Your task to perform on an android device: turn notification dots on Image 0: 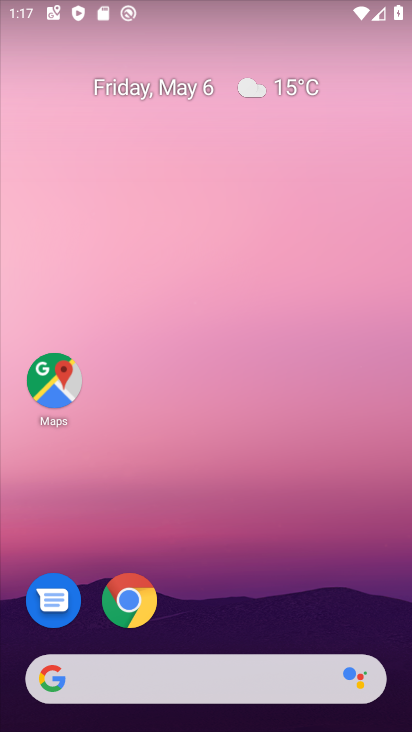
Step 0: drag from (327, 601) to (376, 124)
Your task to perform on an android device: turn notification dots on Image 1: 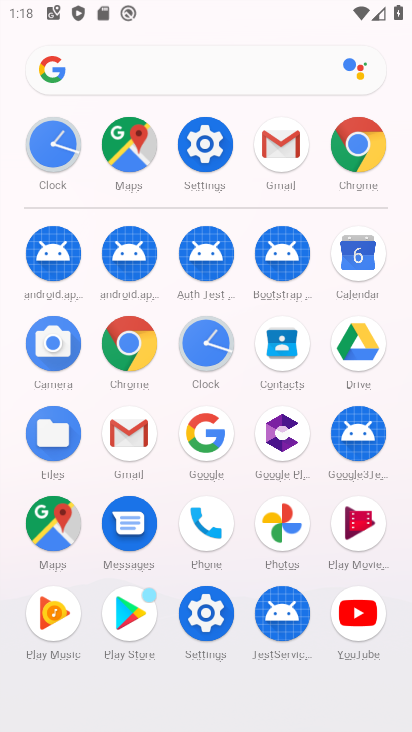
Step 1: click (214, 626)
Your task to perform on an android device: turn notification dots on Image 2: 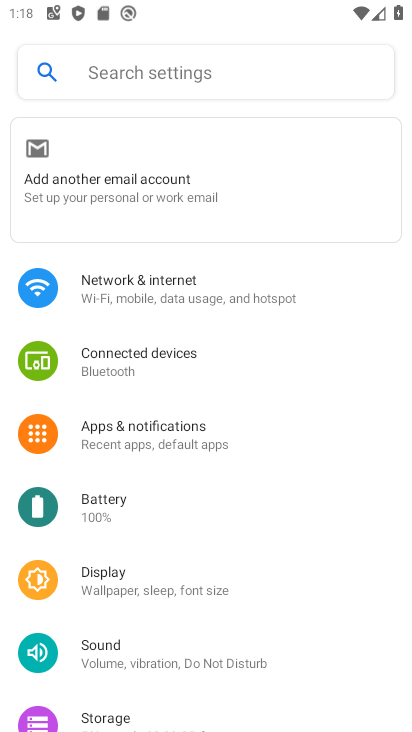
Step 2: click (247, 450)
Your task to perform on an android device: turn notification dots on Image 3: 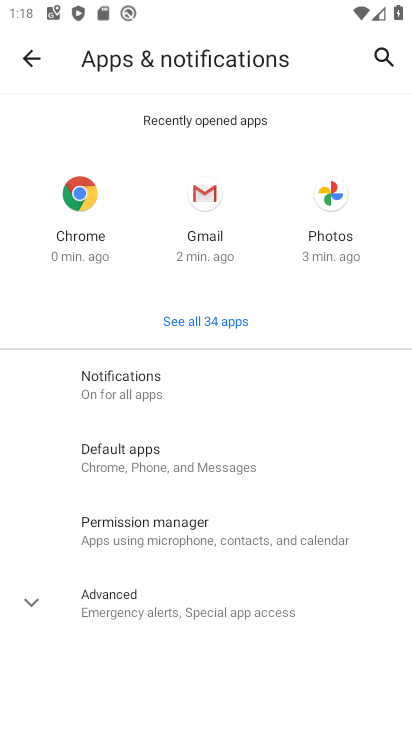
Step 3: click (175, 402)
Your task to perform on an android device: turn notification dots on Image 4: 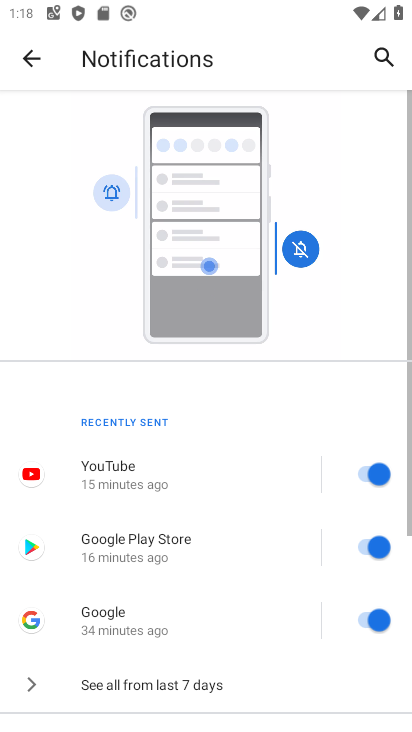
Step 4: drag from (165, 626) to (267, 125)
Your task to perform on an android device: turn notification dots on Image 5: 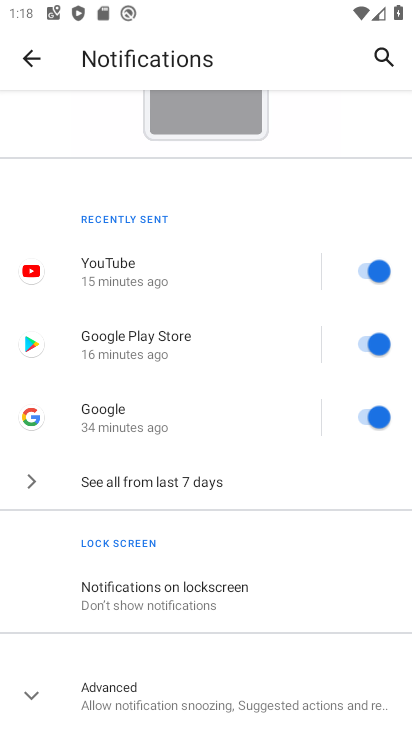
Step 5: click (60, 673)
Your task to perform on an android device: turn notification dots on Image 6: 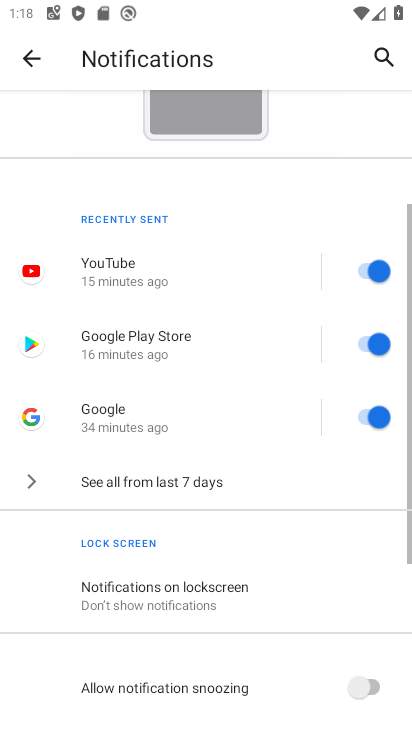
Step 6: task complete